Your task to perform on an android device: Go to Google Image 0: 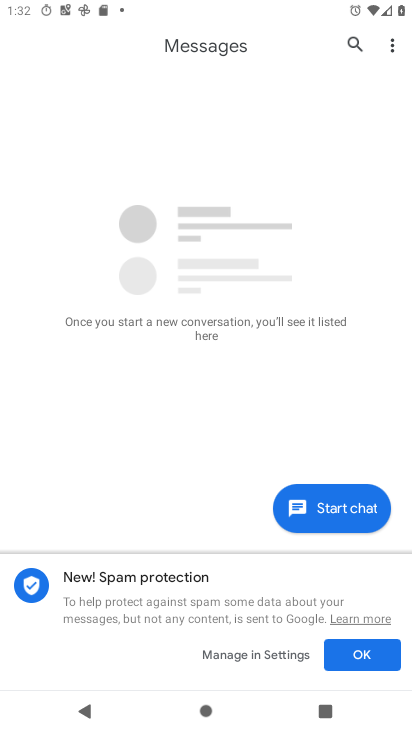
Step 0: press home button
Your task to perform on an android device: Go to Google Image 1: 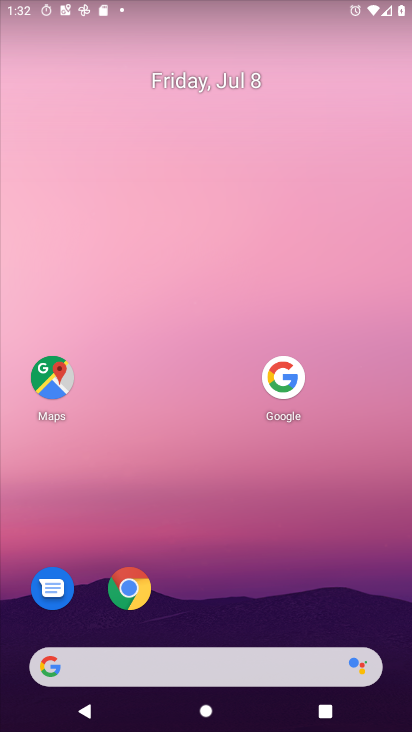
Step 1: click (285, 382)
Your task to perform on an android device: Go to Google Image 2: 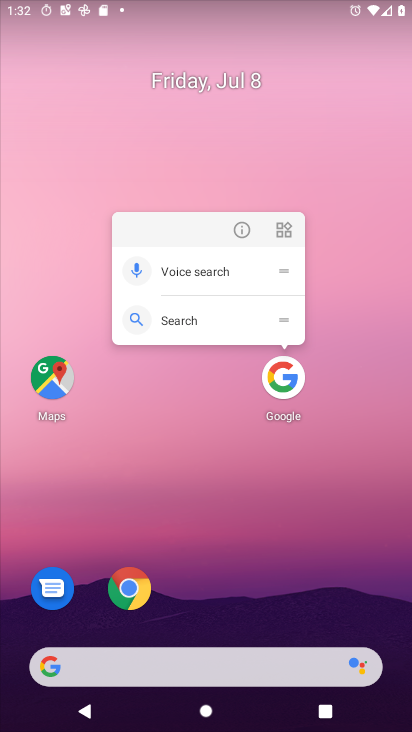
Step 2: click (285, 384)
Your task to perform on an android device: Go to Google Image 3: 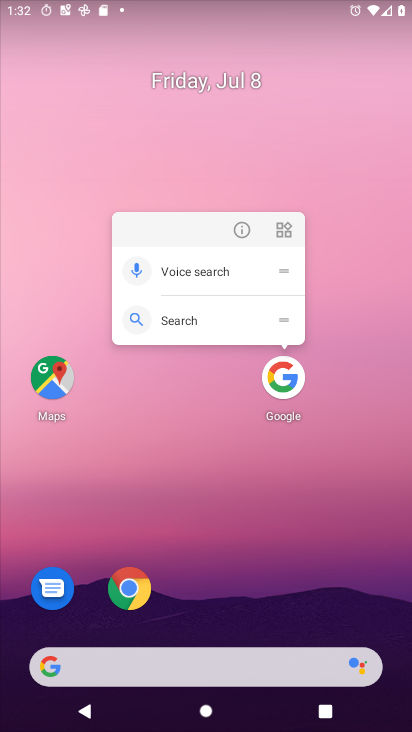
Step 3: click (285, 385)
Your task to perform on an android device: Go to Google Image 4: 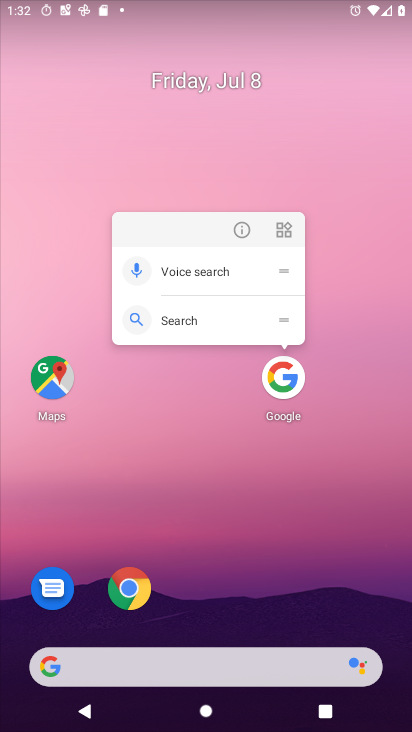
Step 4: click (284, 372)
Your task to perform on an android device: Go to Google Image 5: 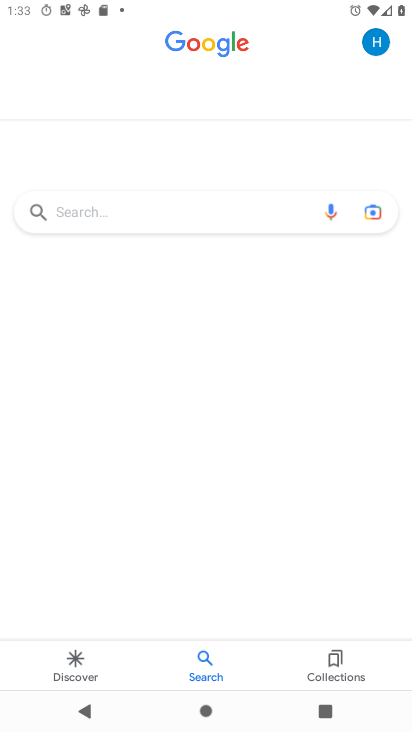
Step 5: task complete